Your task to perform on an android device: check battery use Image 0: 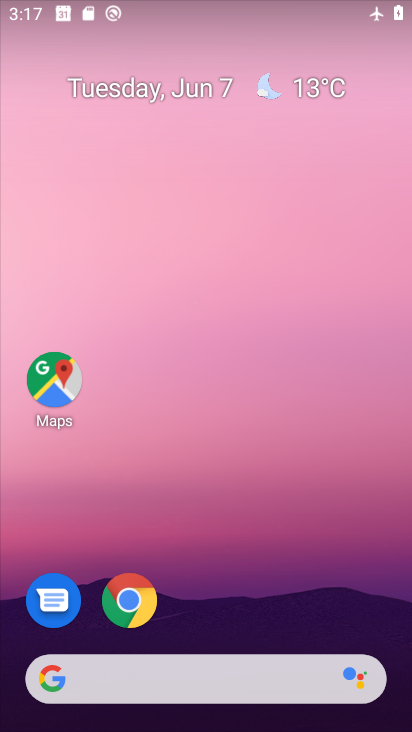
Step 0: drag from (330, 468) to (287, 84)
Your task to perform on an android device: check battery use Image 1: 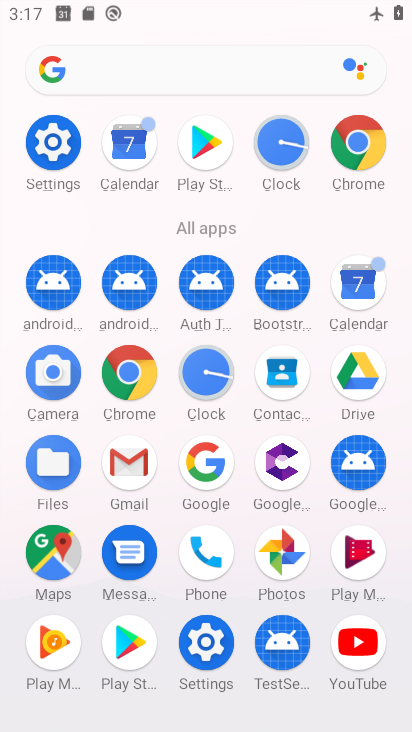
Step 1: click (60, 136)
Your task to perform on an android device: check battery use Image 2: 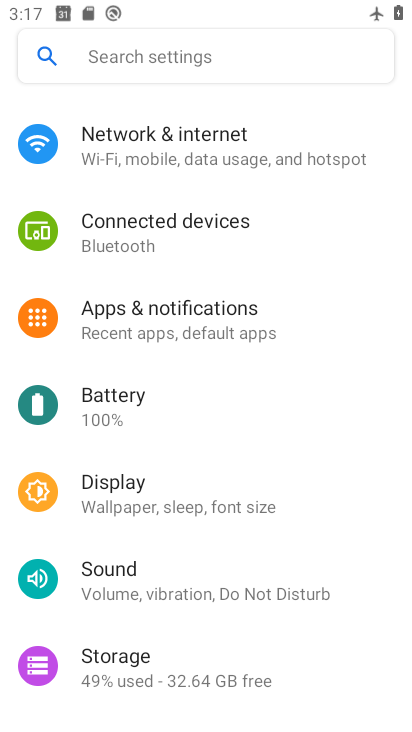
Step 2: click (261, 160)
Your task to perform on an android device: check battery use Image 3: 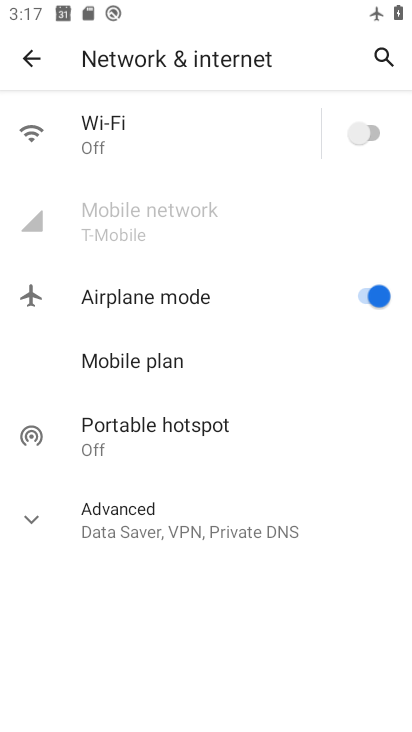
Step 3: click (28, 37)
Your task to perform on an android device: check battery use Image 4: 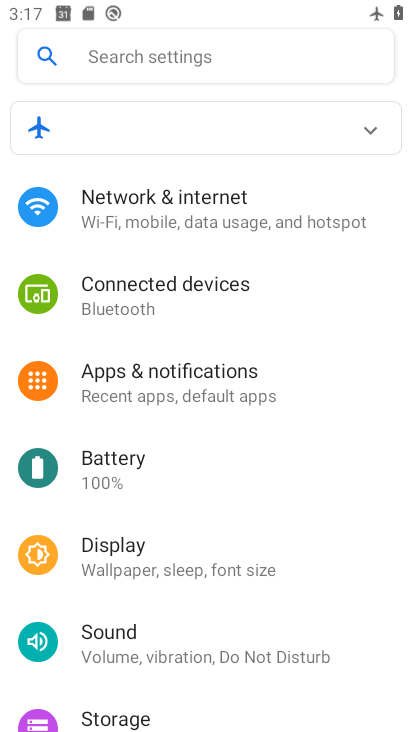
Step 4: click (122, 455)
Your task to perform on an android device: check battery use Image 5: 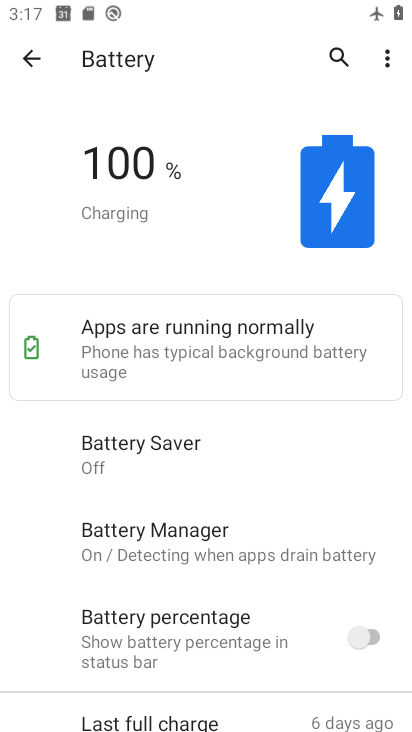
Step 5: click (383, 51)
Your task to perform on an android device: check battery use Image 6: 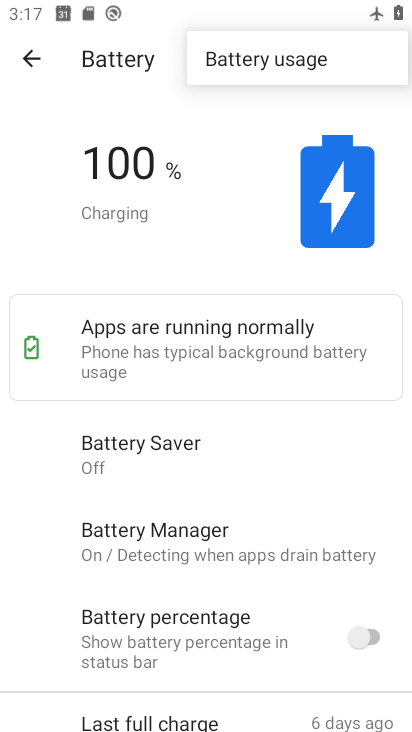
Step 6: click (272, 72)
Your task to perform on an android device: check battery use Image 7: 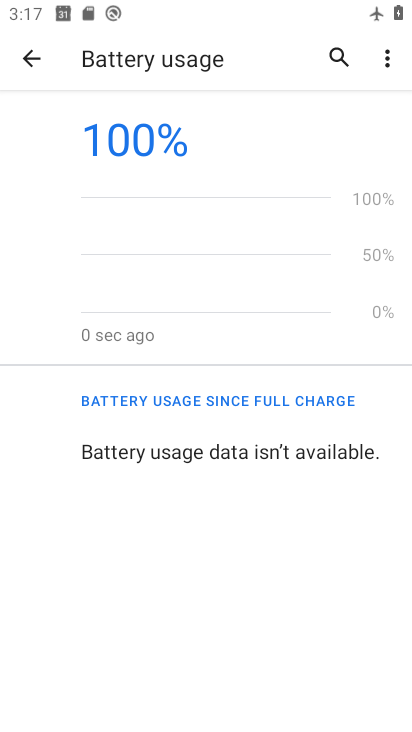
Step 7: task complete